Your task to perform on an android device: turn on the 24-hour format for clock Image 0: 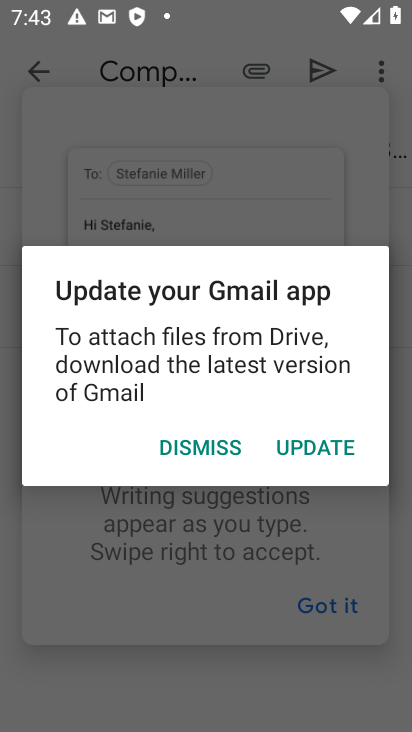
Step 0: press back button
Your task to perform on an android device: turn on the 24-hour format for clock Image 1: 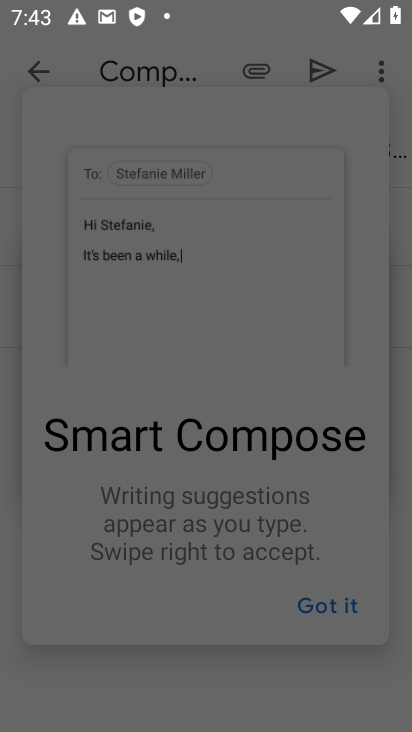
Step 1: press back button
Your task to perform on an android device: turn on the 24-hour format for clock Image 2: 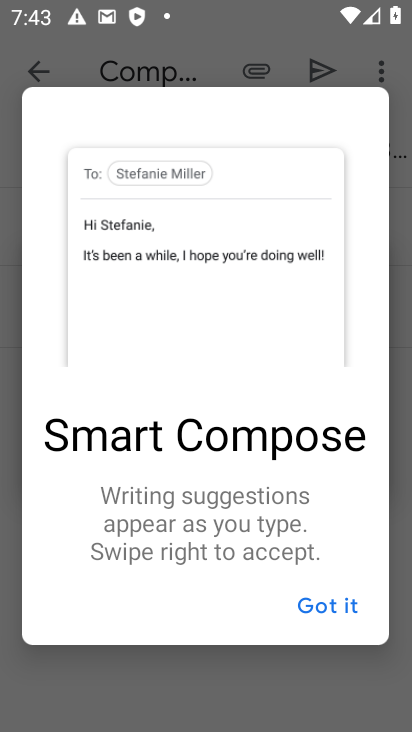
Step 2: press home button
Your task to perform on an android device: turn on the 24-hour format for clock Image 3: 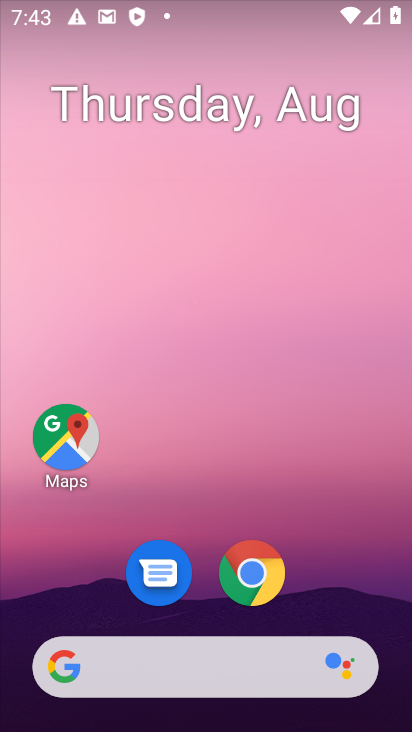
Step 3: click (135, 209)
Your task to perform on an android device: turn on the 24-hour format for clock Image 4: 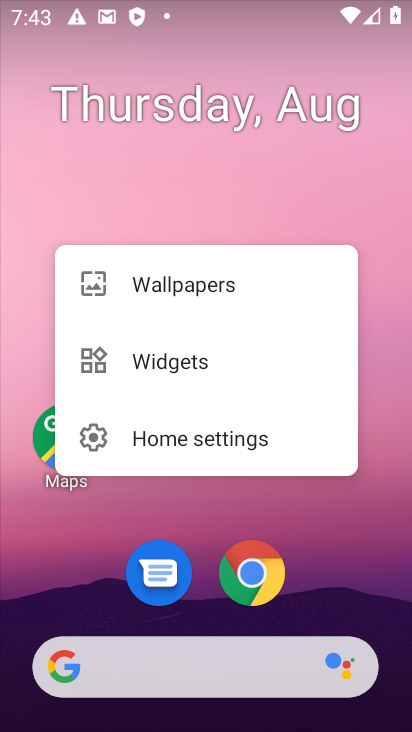
Step 4: drag from (239, 666) to (180, 210)
Your task to perform on an android device: turn on the 24-hour format for clock Image 5: 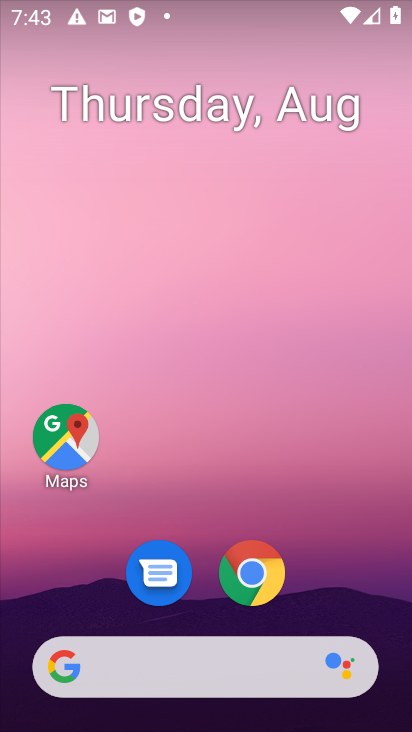
Step 5: drag from (196, 674) to (175, 239)
Your task to perform on an android device: turn on the 24-hour format for clock Image 6: 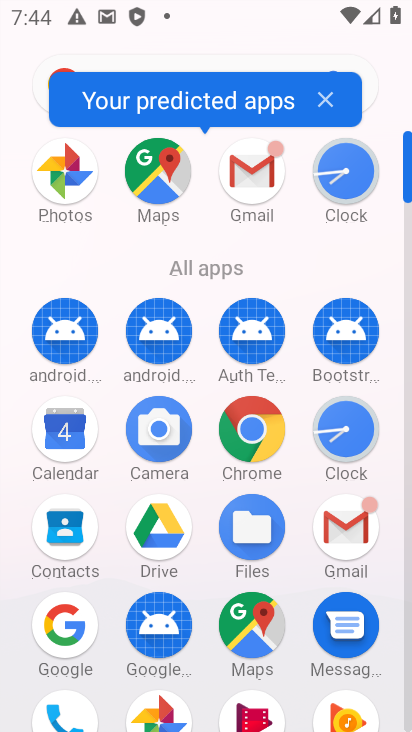
Step 6: drag from (208, 608) to (195, 105)
Your task to perform on an android device: turn on the 24-hour format for clock Image 7: 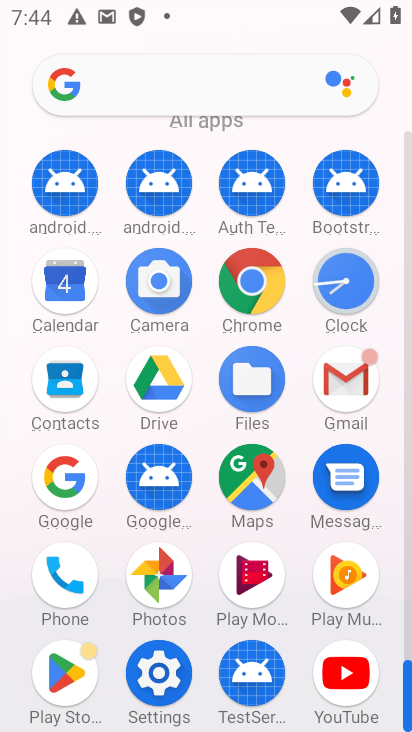
Step 7: click (171, 674)
Your task to perform on an android device: turn on the 24-hour format for clock Image 8: 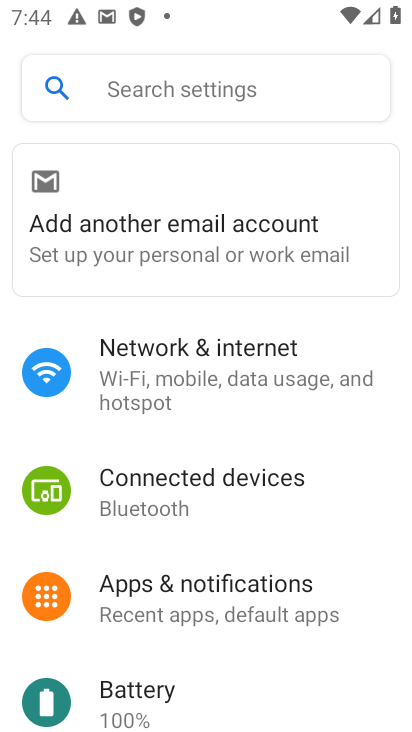
Step 8: drag from (275, 699) to (242, 220)
Your task to perform on an android device: turn on the 24-hour format for clock Image 9: 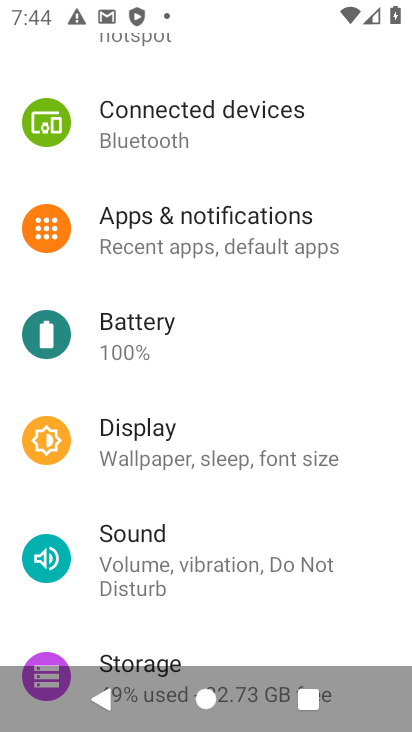
Step 9: drag from (231, 636) to (201, 114)
Your task to perform on an android device: turn on the 24-hour format for clock Image 10: 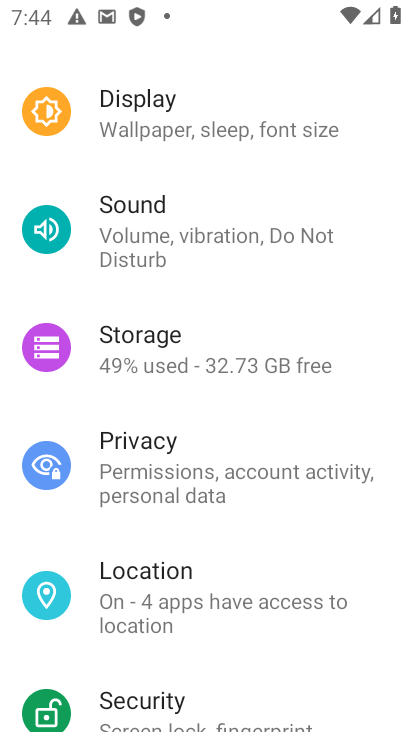
Step 10: drag from (265, 560) to (253, 25)
Your task to perform on an android device: turn on the 24-hour format for clock Image 11: 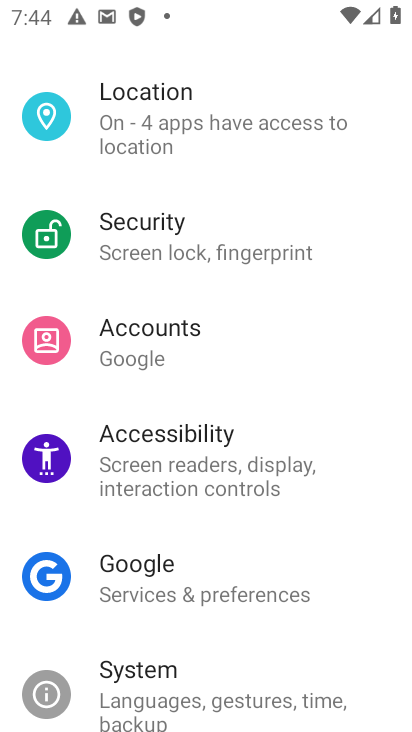
Step 11: click (189, 672)
Your task to perform on an android device: turn on the 24-hour format for clock Image 12: 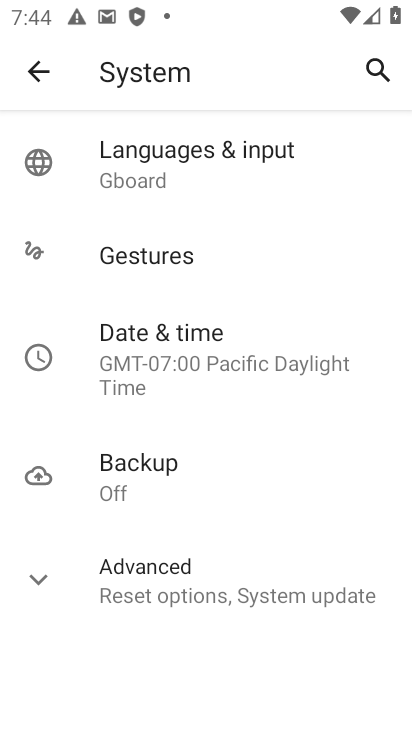
Step 12: click (190, 358)
Your task to perform on an android device: turn on the 24-hour format for clock Image 13: 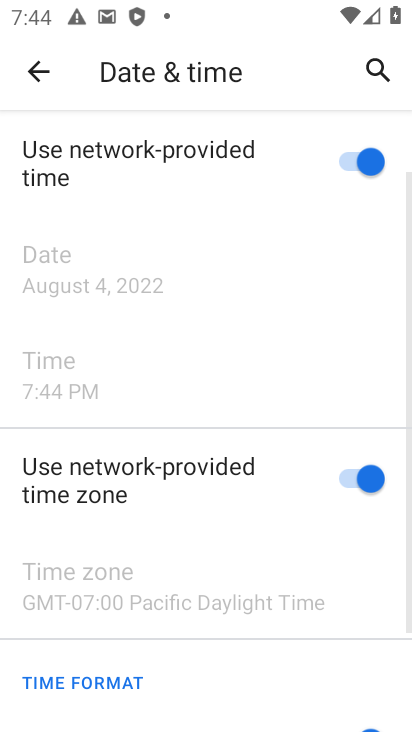
Step 13: drag from (312, 598) to (223, 29)
Your task to perform on an android device: turn on the 24-hour format for clock Image 14: 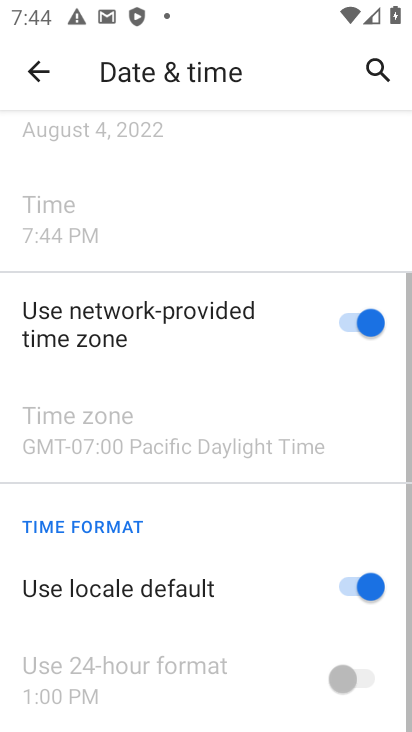
Step 14: click (358, 596)
Your task to perform on an android device: turn on the 24-hour format for clock Image 15: 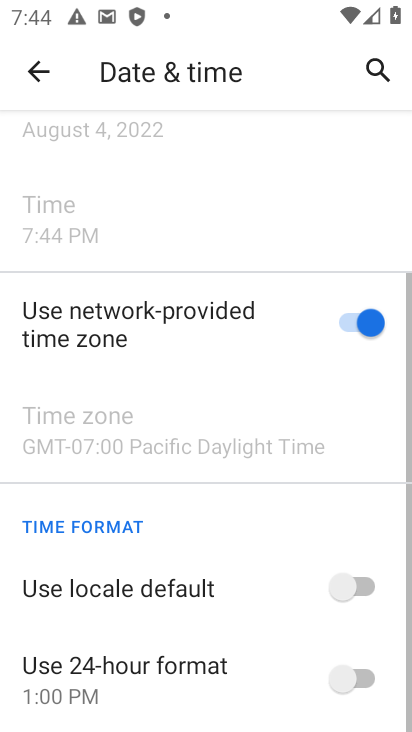
Step 15: click (349, 685)
Your task to perform on an android device: turn on the 24-hour format for clock Image 16: 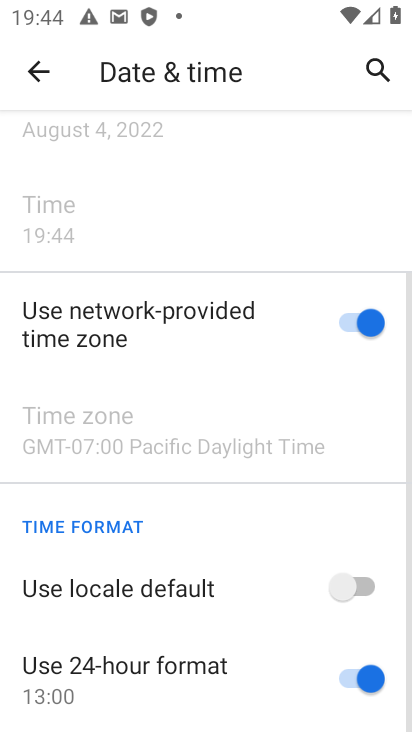
Step 16: task complete